Your task to perform on an android device: turn smart compose on in the gmail app Image 0: 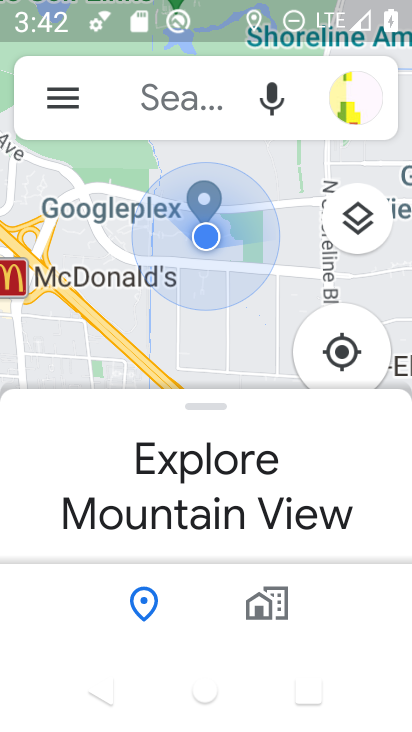
Step 0: press home button
Your task to perform on an android device: turn smart compose on in the gmail app Image 1: 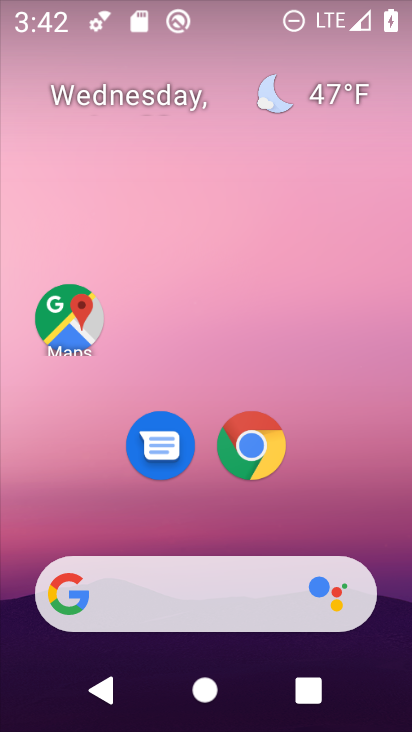
Step 1: drag from (305, 503) to (290, 18)
Your task to perform on an android device: turn smart compose on in the gmail app Image 2: 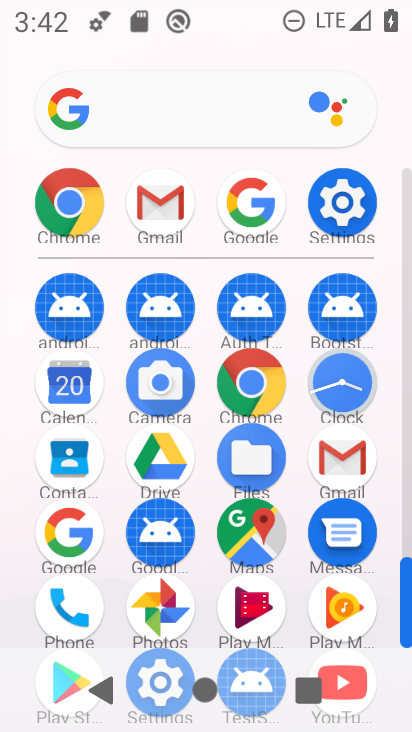
Step 2: click (163, 201)
Your task to perform on an android device: turn smart compose on in the gmail app Image 3: 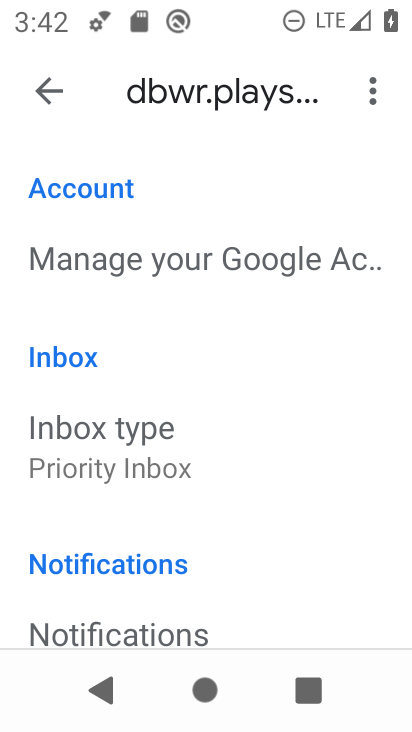
Step 3: task complete